Your task to perform on an android device: Open Youtube and go to the subscriptions tab Image 0: 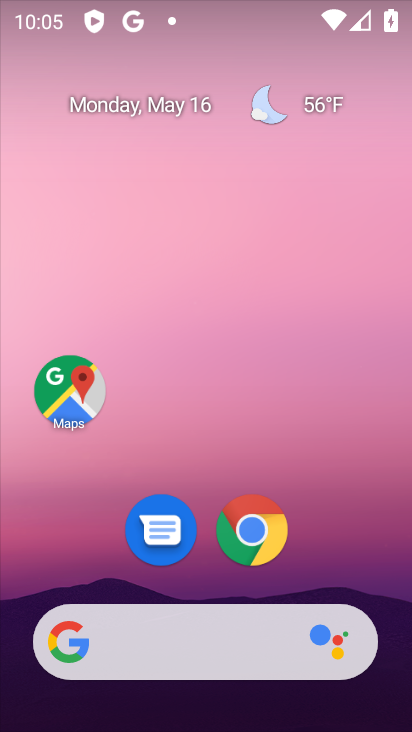
Step 0: drag from (383, 547) to (380, 148)
Your task to perform on an android device: Open Youtube and go to the subscriptions tab Image 1: 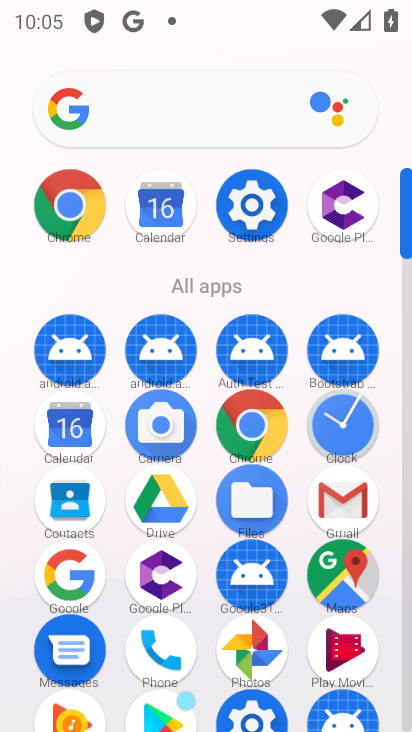
Step 1: drag from (206, 591) to (199, 315)
Your task to perform on an android device: Open Youtube and go to the subscriptions tab Image 2: 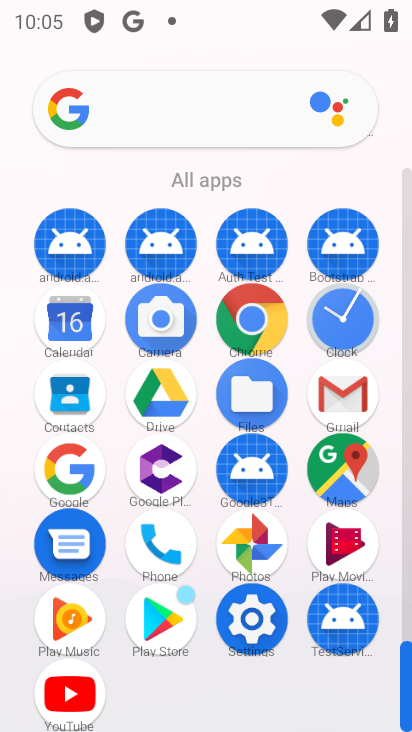
Step 2: click (87, 696)
Your task to perform on an android device: Open Youtube and go to the subscriptions tab Image 3: 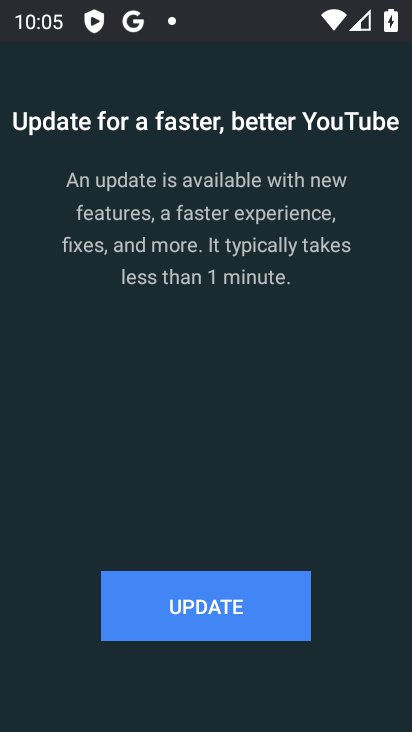
Step 3: click (193, 626)
Your task to perform on an android device: Open Youtube and go to the subscriptions tab Image 4: 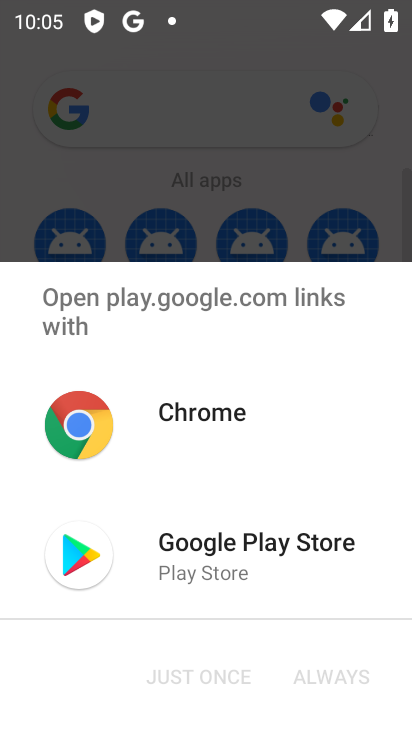
Step 4: click (207, 575)
Your task to perform on an android device: Open Youtube and go to the subscriptions tab Image 5: 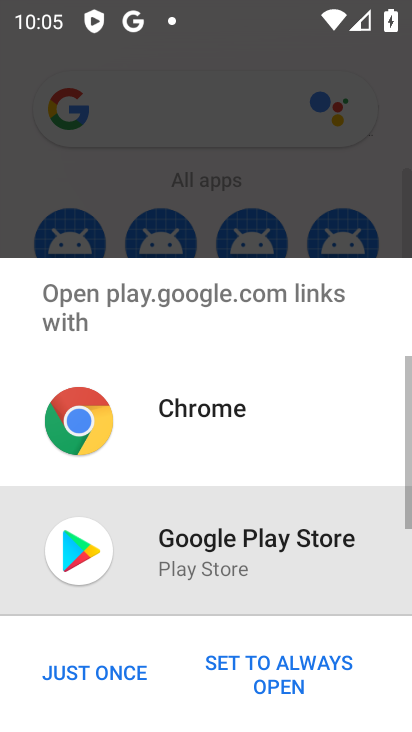
Step 5: click (110, 668)
Your task to perform on an android device: Open Youtube and go to the subscriptions tab Image 6: 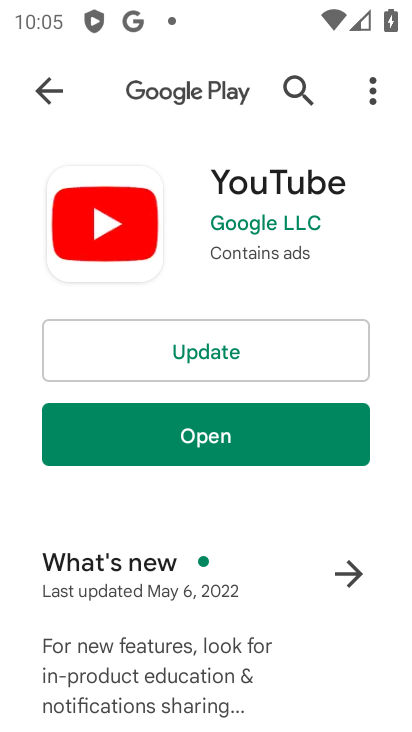
Step 6: click (220, 352)
Your task to perform on an android device: Open Youtube and go to the subscriptions tab Image 7: 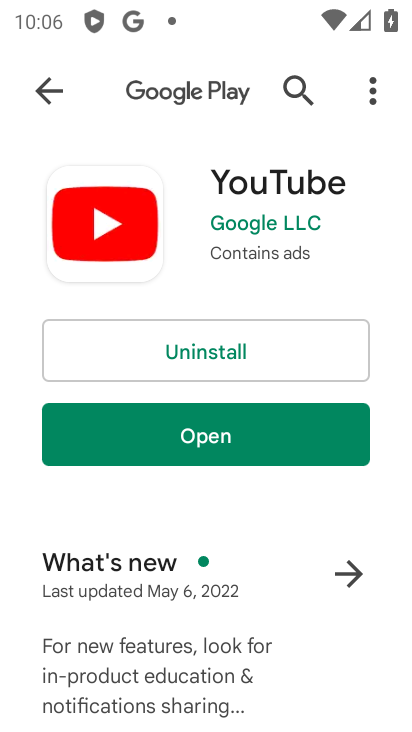
Step 7: click (257, 452)
Your task to perform on an android device: Open Youtube and go to the subscriptions tab Image 8: 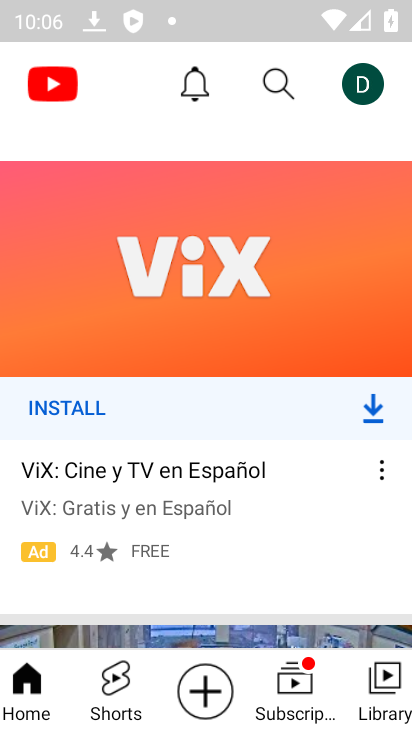
Step 8: click (281, 684)
Your task to perform on an android device: Open Youtube and go to the subscriptions tab Image 9: 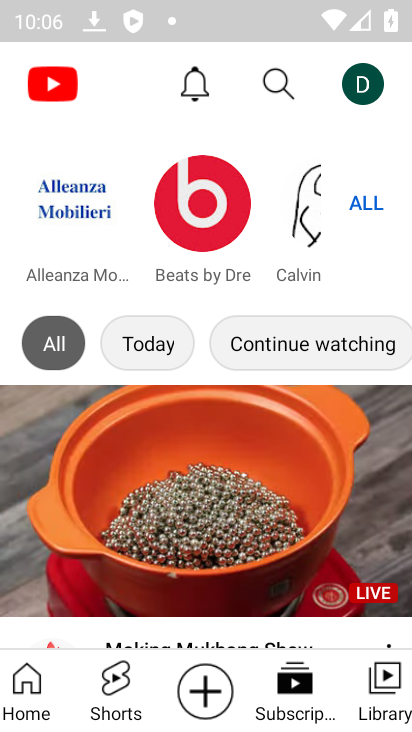
Step 9: task complete